Your task to perform on an android device: toggle notification dots Image 0: 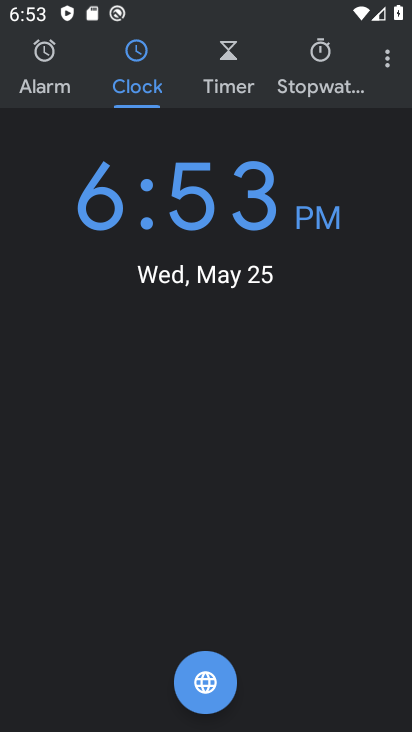
Step 0: press back button
Your task to perform on an android device: toggle notification dots Image 1: 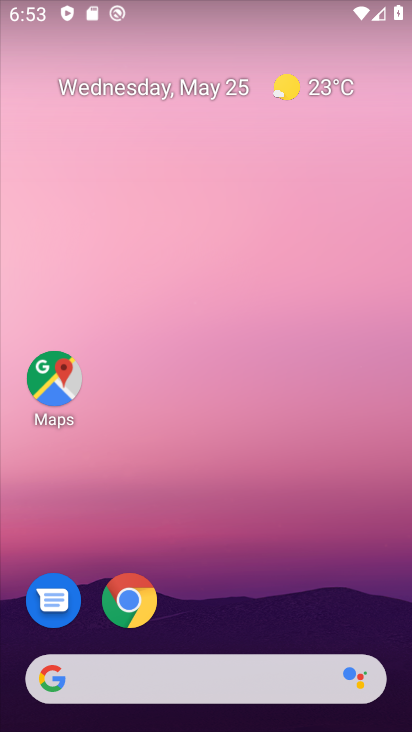
Step 1: drag from (289, 580) to (193, 126)
Your task to perform on an android device: toggle notification dots Image 2: 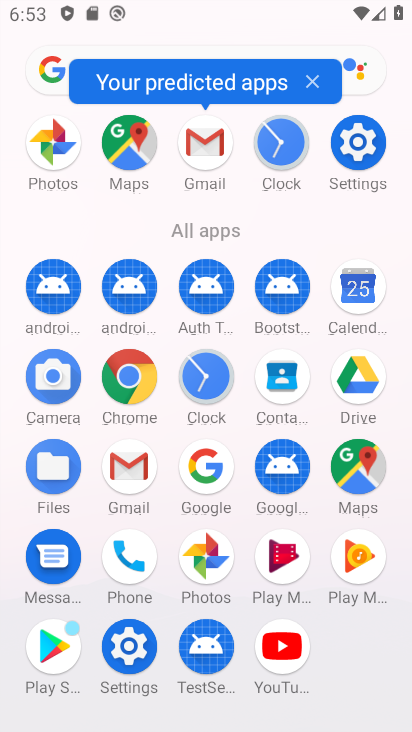
Step 2: click (357, 143)
Your task to perform on an android device: toggle notification dots Image 3: 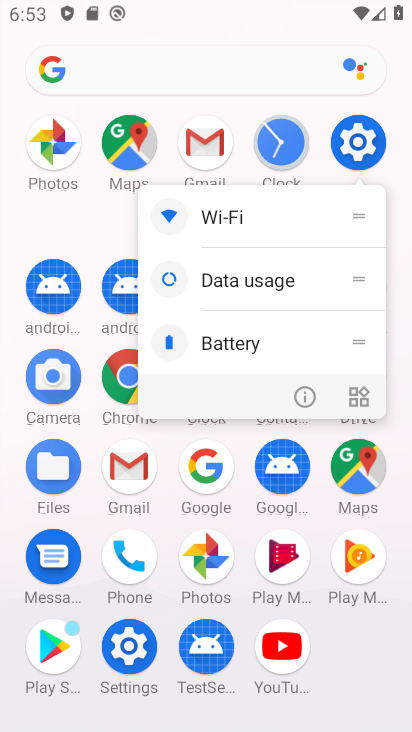
Step 3: click (357, 143)
Your task to perform on an android device: toggle notification dots Image 4: 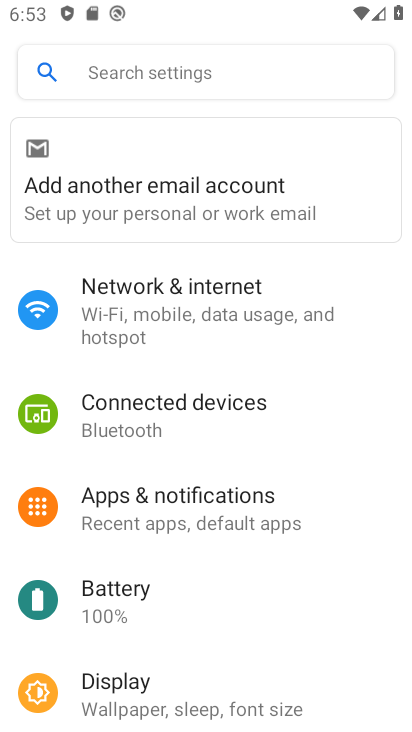
Step 4: click (165, 498)
Your task to perform on an android device: toggle notification dots Image 5: 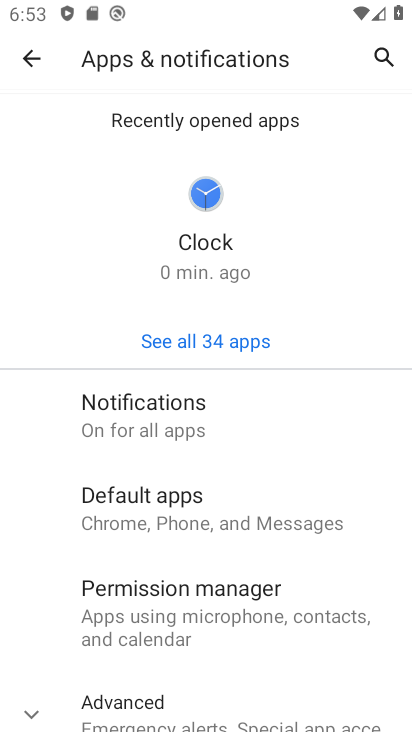
Step 5: click (159, 406)
Your task to perform on an android device: toggle notification dots Image 6: 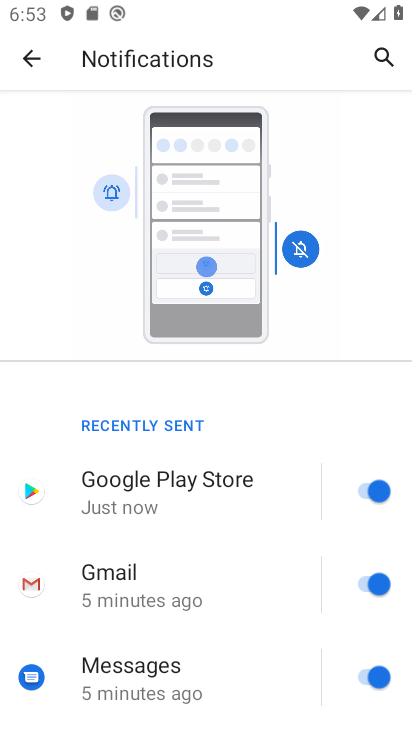
Step 6: drag from (157, 546) to (216, 400)
Your task to perform on an android device: toggle notification dots Image 7: 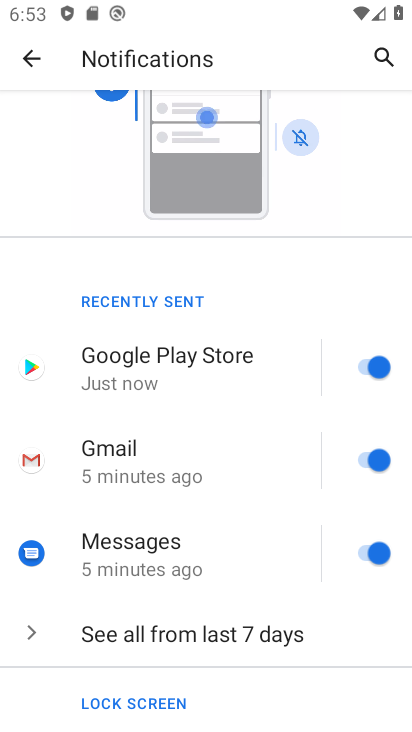
Step 7: drag from (160, 596) to (231, 451)
Your task to perform on an android device: toggle notification dots Image 8: 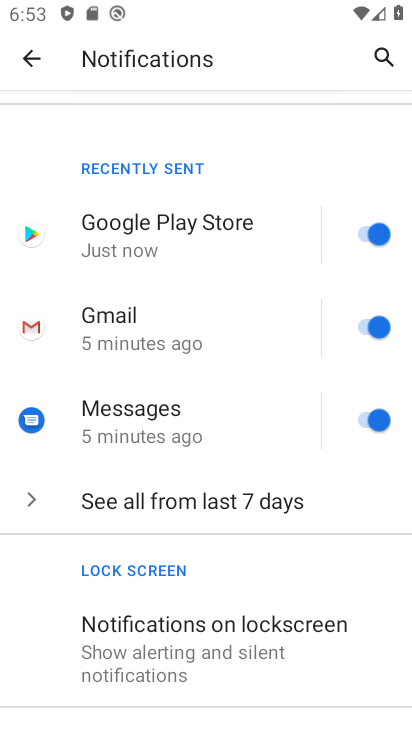
Step 8: drag from (167, 596) to (263, 444)
Your task to perform on an android device: toggle notification dots Image 9: 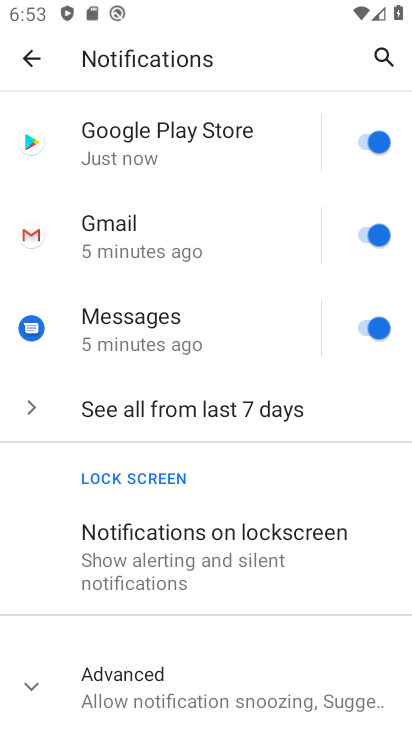
Step 9: click (176, 693)
Your task to perform on an android device: toggle notification dots Image 10: 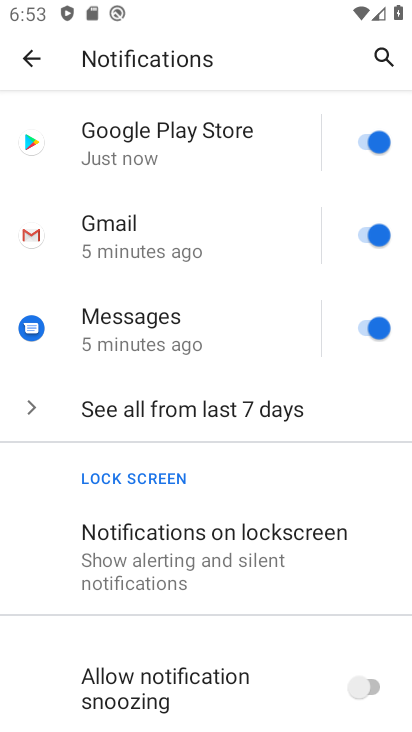
Step 10: drag from (191, 649) to (262, 466)
Your task to perform on an android device: toggle notification dots Image 11: 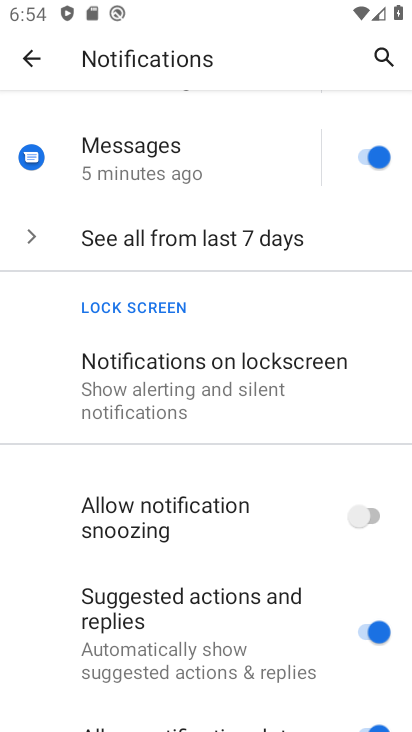
Step 11: drag from (202, 566) to (321, 383)
Your task to perform on an android device: toggle notification dots Image 12: 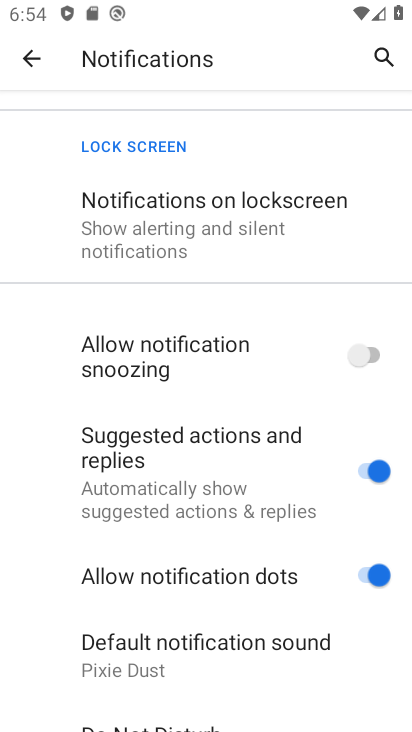
Step 12: click (376, 577)
Your task to perform on an android device: toggle notification dots Image 13: 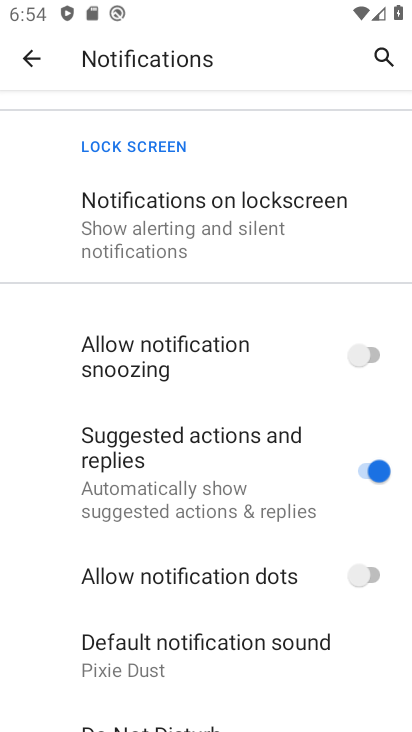
Step 13: task complete